Your task to perform on an android device: turn on translation in the chrome app Image 0: 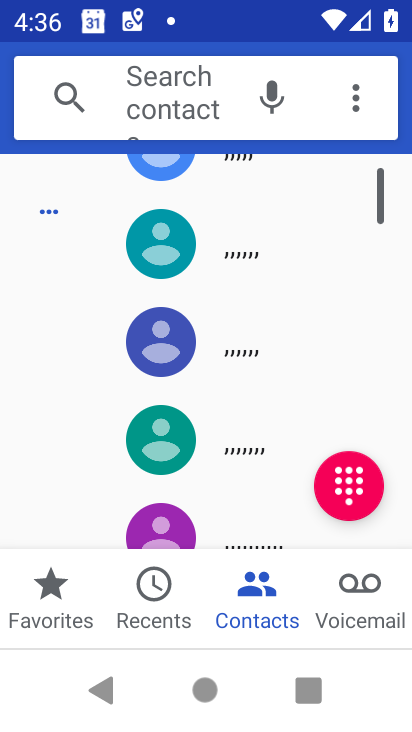
Step 0: press home button
Your task to perform on an android device: turn on translation in the chrome app Image 1: 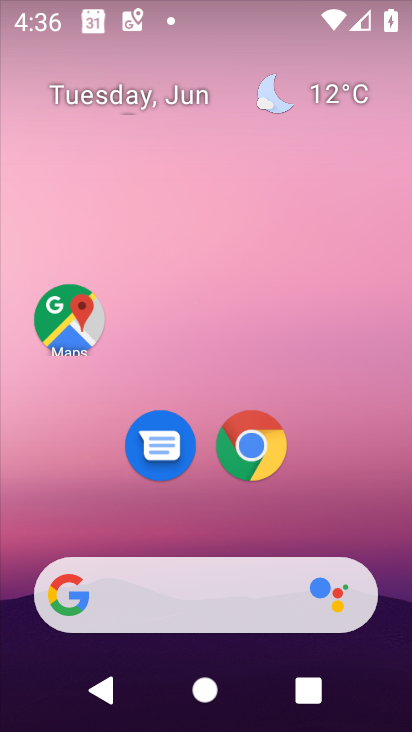
Step 1: drag from (384, 486) to (409, 15)
Your task to perform on an android device: turn on translation in the chrome app Image 2: 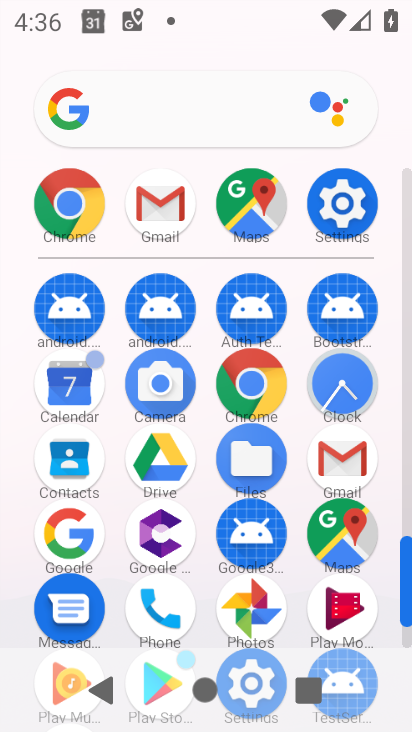
Step 2: click (86, 216)
Your task to perform on an android device: turn on translation in the chrome app Image 3: 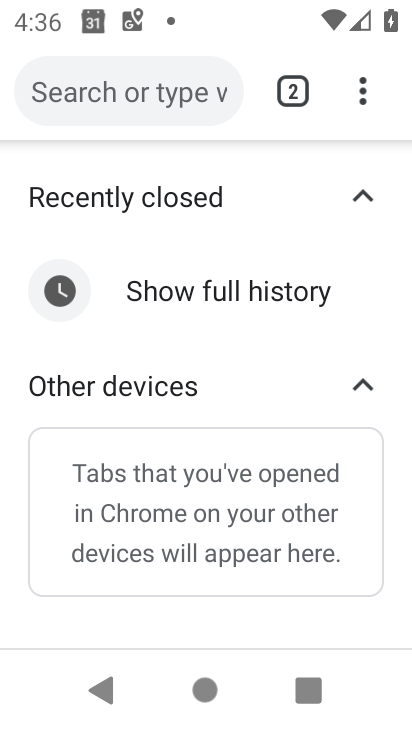
Step 3: drag from (372, 103) to (210, 465)
Your task to perform on an android device: turn on translation in the chrome app Image 4: 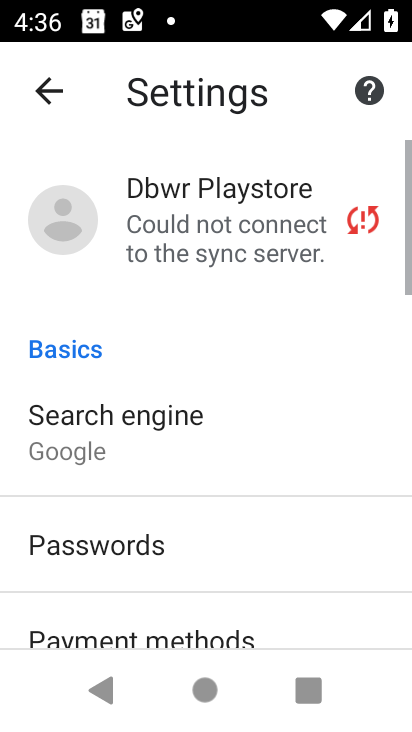
Step 4: drag from (156, 570) to (193, 181)
Your task to perform on an android device: turn on translation in the chrome app Image 5: 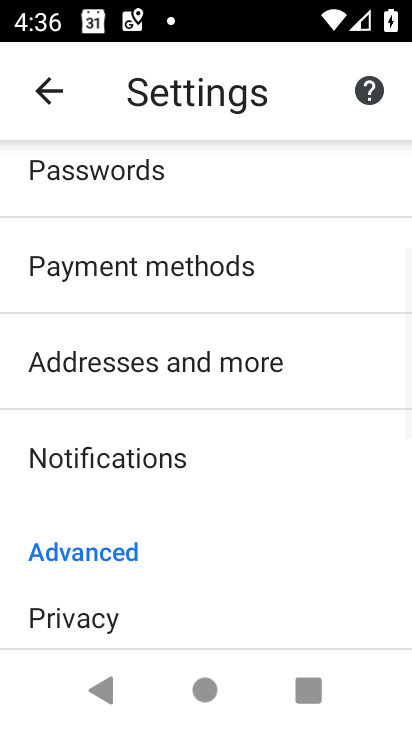
Step 5: drag from (146, 564) to (178, 164)
Your task to perform on an android device: turn on translation in the chrome app Image 6: 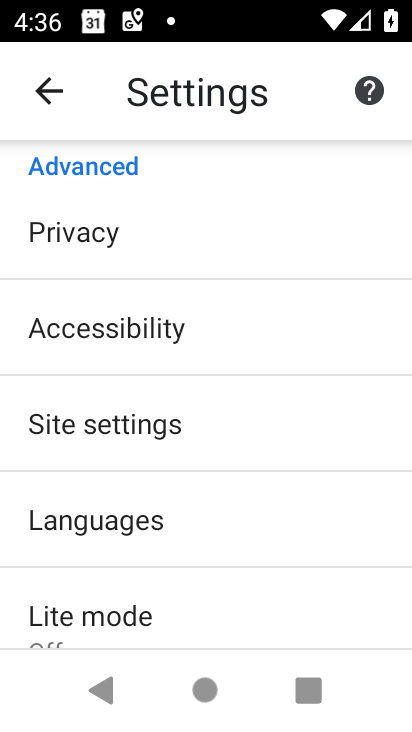
Step 6: click (105, 532)
Your task to perform on an android device: turn on translation in the chrome app Image 7: 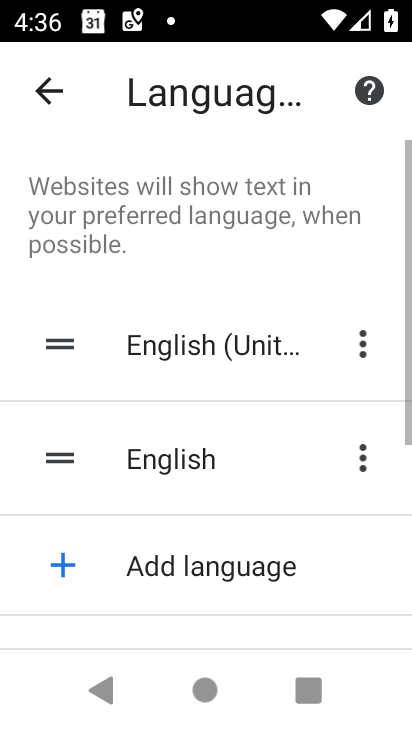
Step 7: task complete